Your task to perform on an android device: Go to Google Image 0: 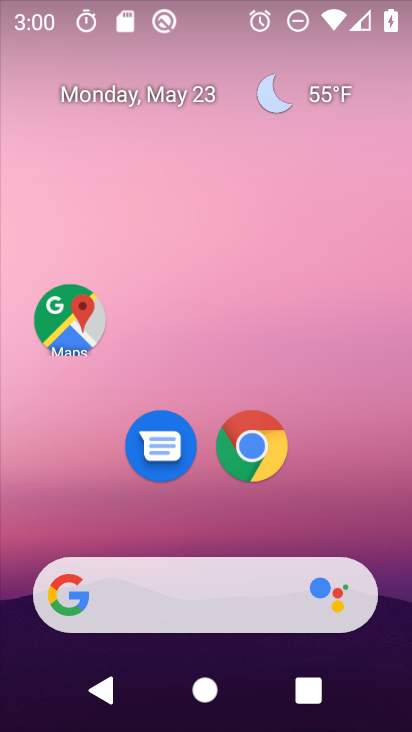
Step 0: drag from (218, 536) to (111, 168)
Your task to perform on an android device: Go to Google Image 1: 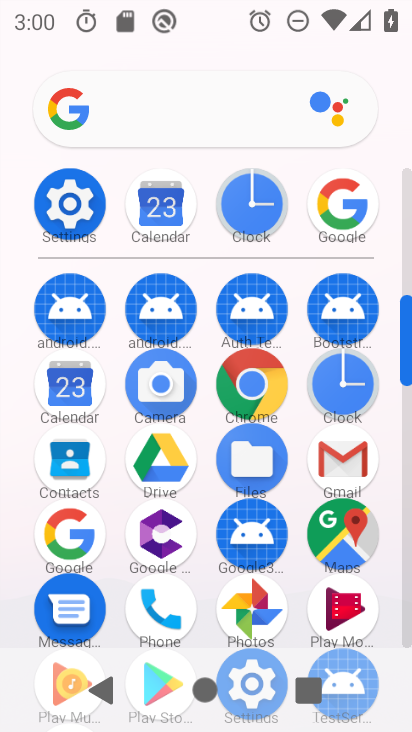
Step 1: click (321, 219)
Your task to perform on an android device: Go to Google Image 2: 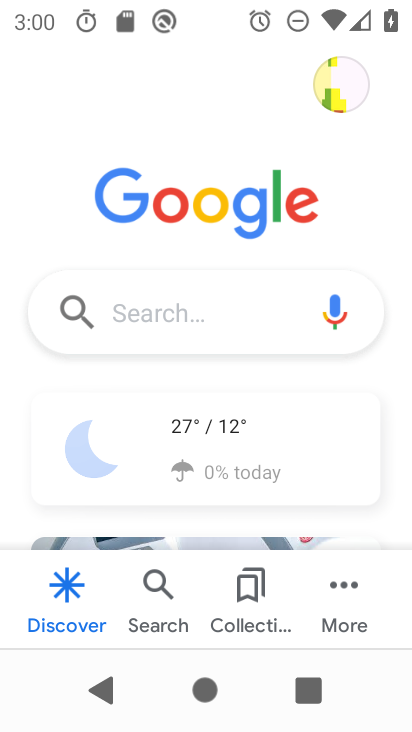
Step 2: task complete